Your task to perform on an android device: find snoozed emails in the gmail app Image 0: 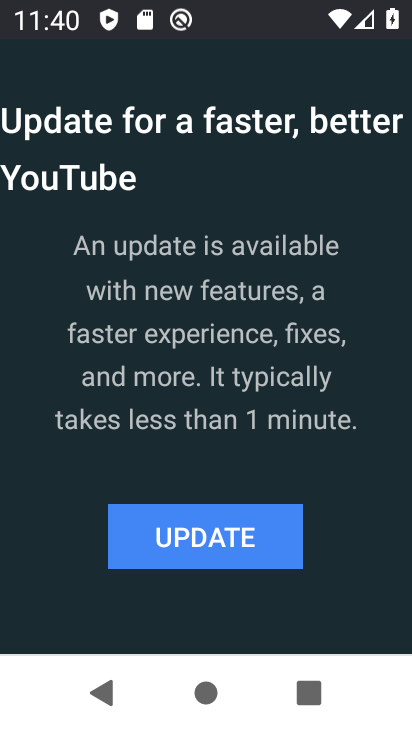
Step 0: press home button
Your task to perform on an android device: find snoozed emails in the gmail app Image 1: 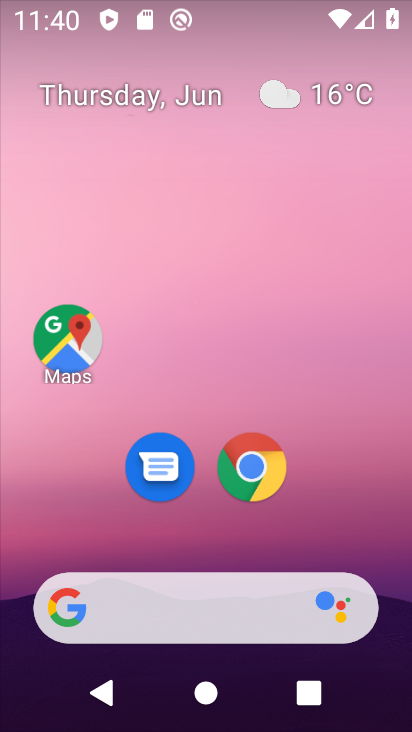
Step 1: drag from (394, 608) to (345, 86)
Your task to perform on an android device: find snoozed emails in the gmail app Image 2: 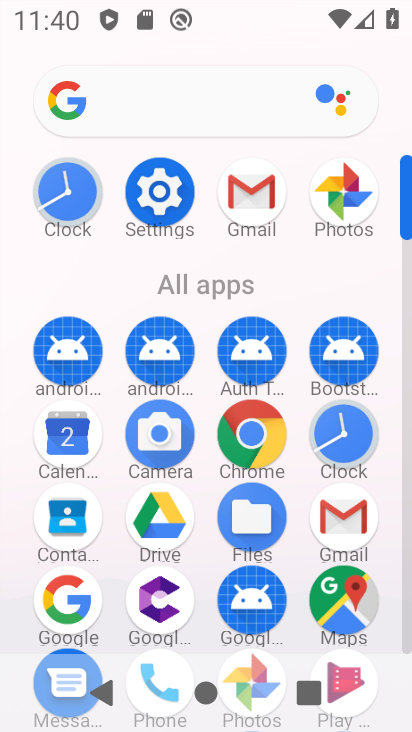
Step 2: click (403, 606)
Your task to perform on an android device: find snoozed emails in the gmail app Image 3: 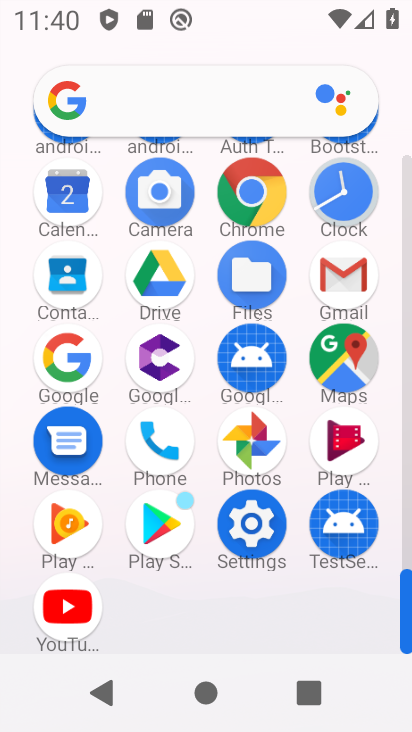
Step 3: click (344, 275)
Your task to perform on an android device: find snoozed emails in the gmail app Image 4: 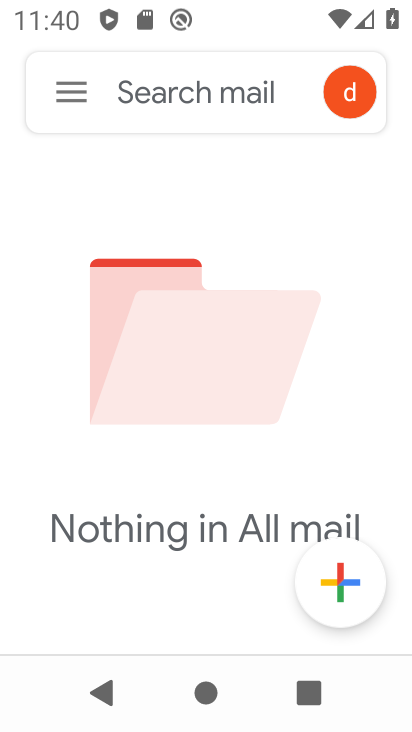
Step 4: click (67, 100)
Your task to perform on an android device: find snoozed emails in the gmail app Image 5: 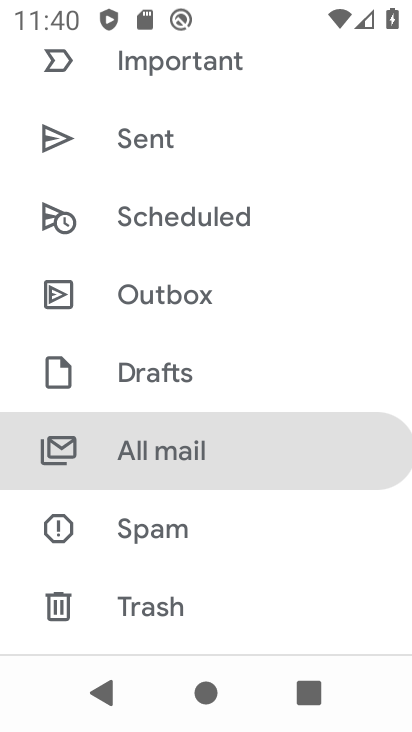
Step 5: drag from (292, 458) to (330, 463)
Your task to perform on an android device: find snoozed emails in the gmail app Image 6: 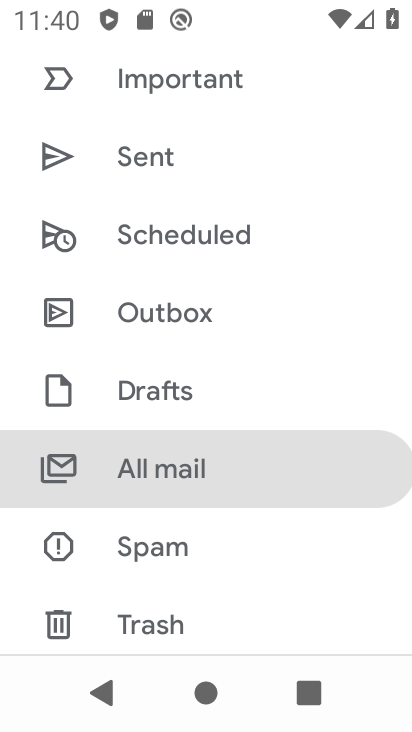
Step 6: drag from (313, 161) to (268, 476)
Your task to perform on an android device: find snoozed emails in the gmail app Image 7: 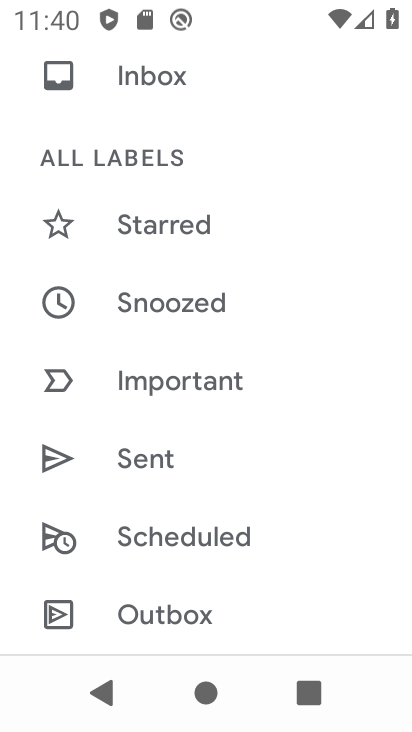
Step 7: click (154, 296)
Your task to perform on an android device: find snoozed emails in the gmail app Image 8: 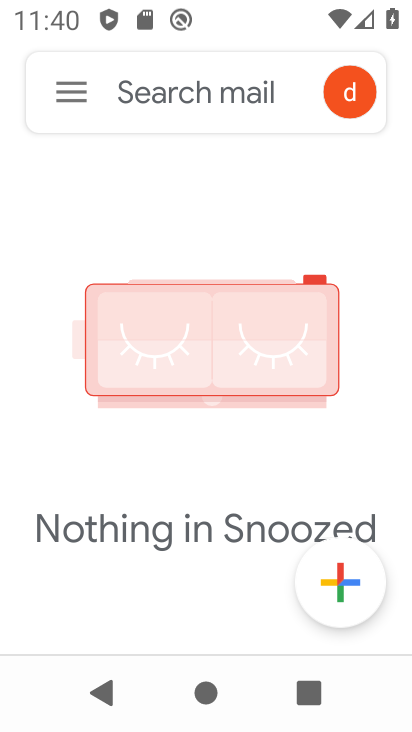
Step 8: task complete